Your task to perform on an android device: toggle translation in the chrome app Image 0: 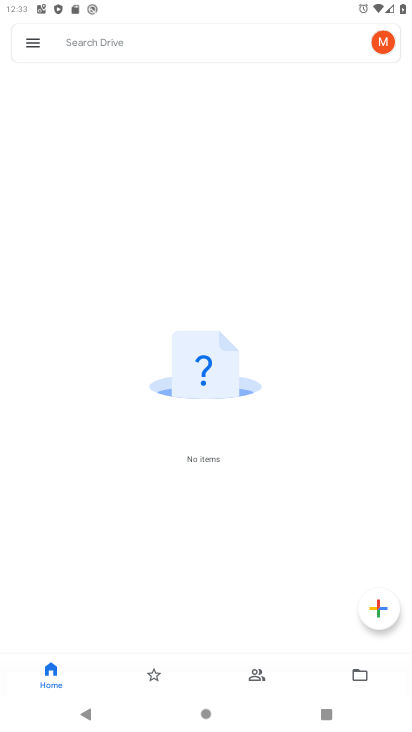
Step 0: press home button
Your task to perform on an android device: toggle translation in the chrome app Image 1: 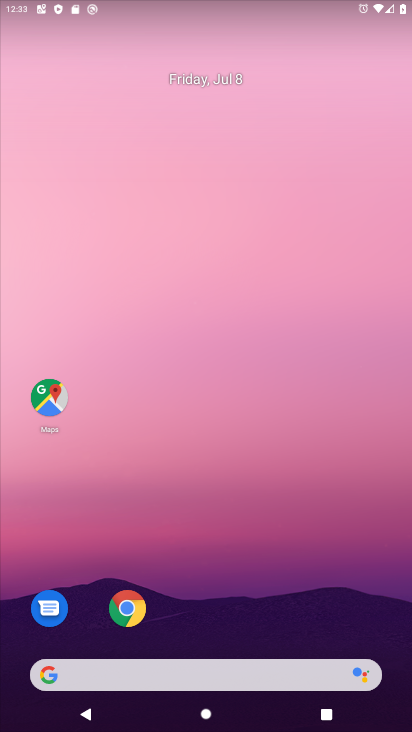
Step 1: click (126, 601)
Your task to perform on an android device: toggle translation in the chrome app Image 2: 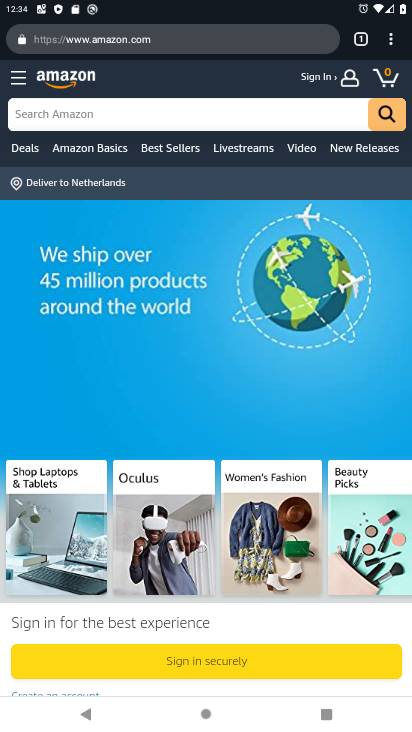
Step 2: click (390, 36)
Your task to perform on an android device: toggle translation in the chrome app Image 3: 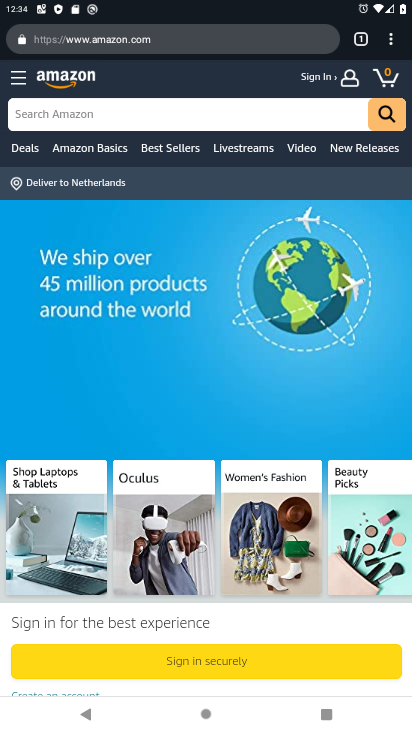
Step 3: click (392, 41)
Your task to perform on an android device: toggle translation in the chrome app Image 4: 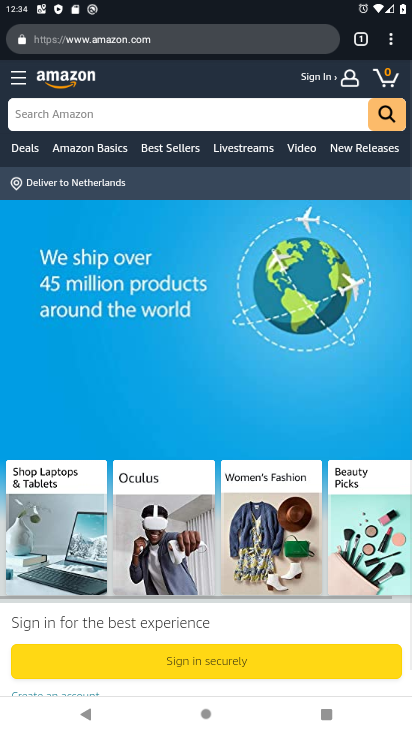
Step 4: click (390, 40)
Your task to perform on an android device: toggle translation in the chrome app Image 5: 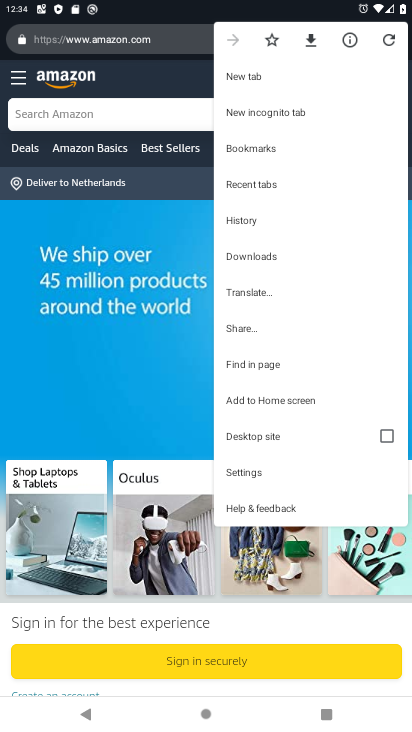
Step 5: click (244, 294)
Your task to perform on an android device: toggle translation in the chrome app Image 6: 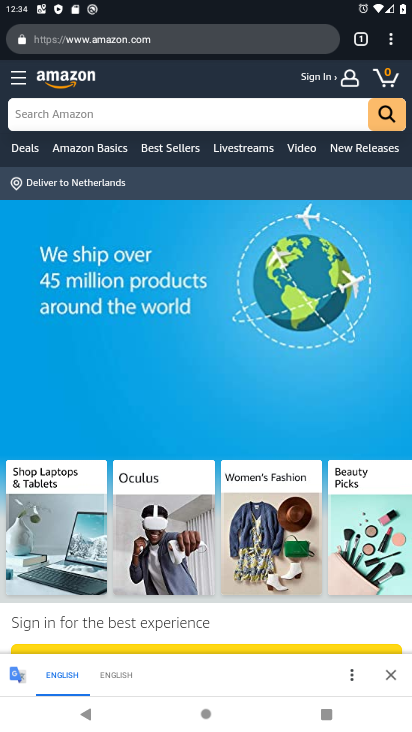
Step 6: click (390, 45)
Your task to perform on an android device: toggle translation in the chrome app Image 7: 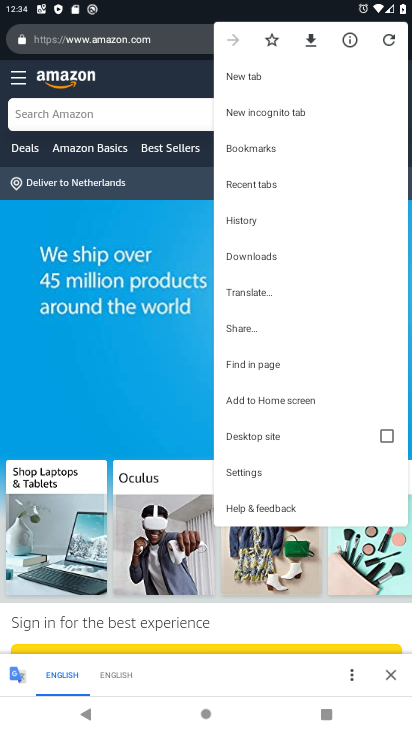
Step 7: click (240, 284)
Your task to perform on an android device: toggle translation in the chrome app Image 8: 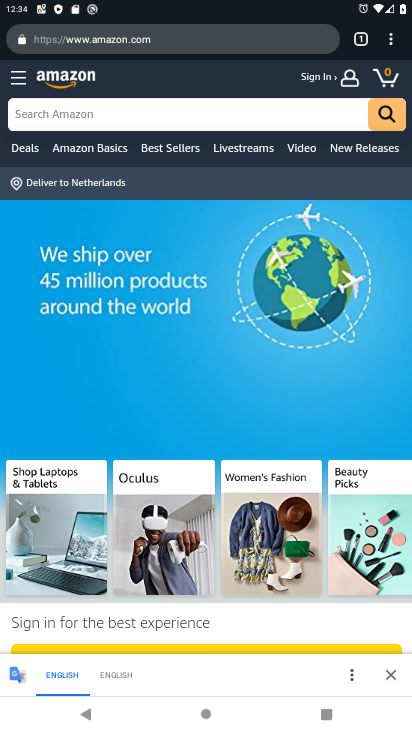
Step 8: task complete